Your task to perform on an android device: turn on translation in the chrome app Image 0: 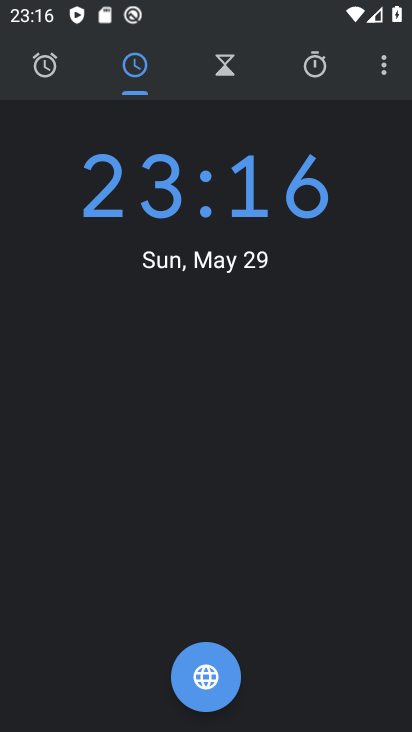
Step 0: press home button
Your task to perform on an android device: turn on translation in the chrome app Image 1: 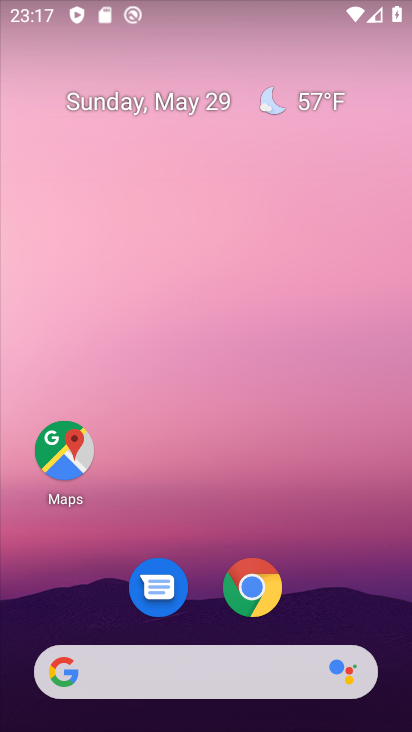
Step 1: click (244, 590)
Your task to perform on an android device: turn on translation in the chrome app Image 2: 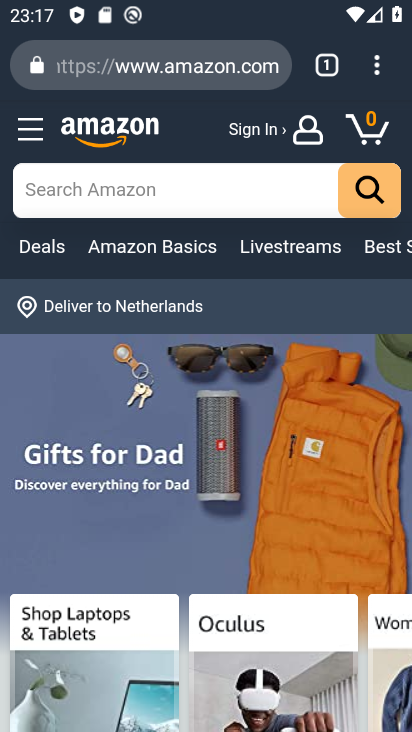
Step 2: click (379, 55)
Your task to perform on an android device: turn on translation in the chrome app Image 3: 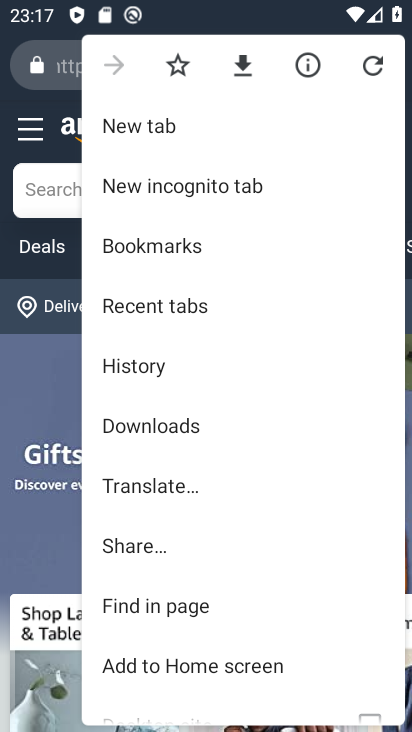
Step 3: drag from (225, 688) to (230, 102)
Your task to perform on an android device: turn on translation in the chrome app Image 4: 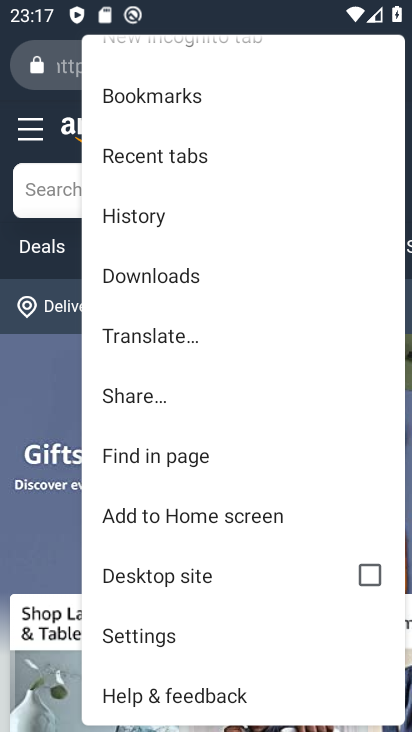
Step 4: click (233, 615)
Your task to perform on an android device: turn on translation in the chrome app Image 5: 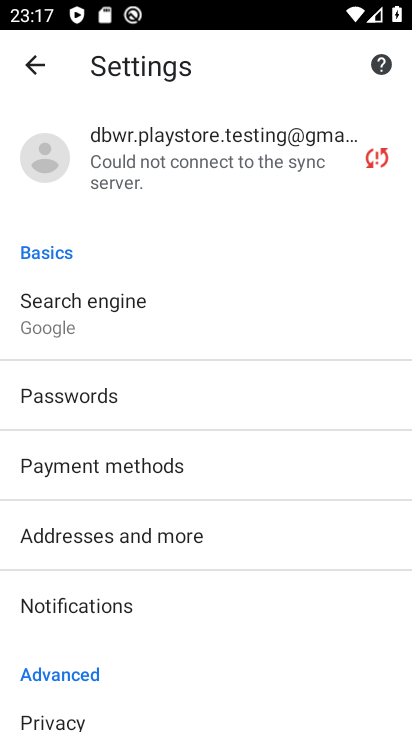
Step 5: drag from (230, 671) to (202, 318)
Your task to perform on an android device: turn on translation in the chrome app Image 6: 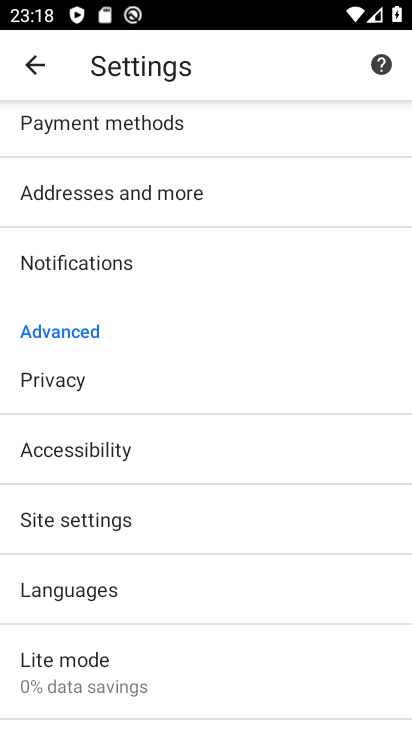
Step 6: click (159, 583)
Your task to perform on an android device: turn on translation in the chrome app Image 7: 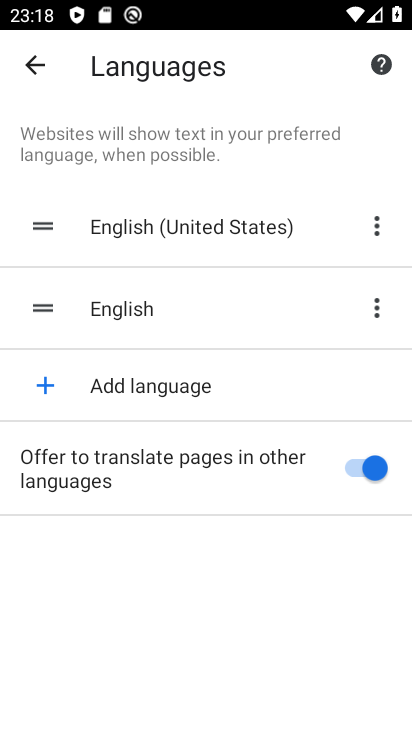
Step 7: task complete